Your task to perform on an android device: Turn off the flashlight Image 0: 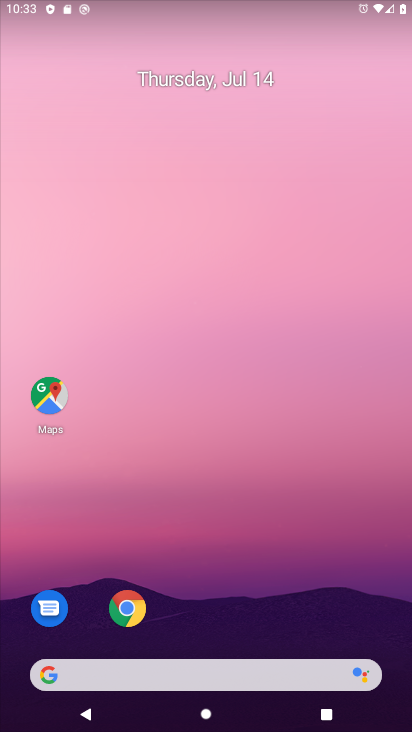
Step 0: drag from (199, 624) to (306, 16)
Your task to perform on an android device: Turn off the flashlight Image 1: 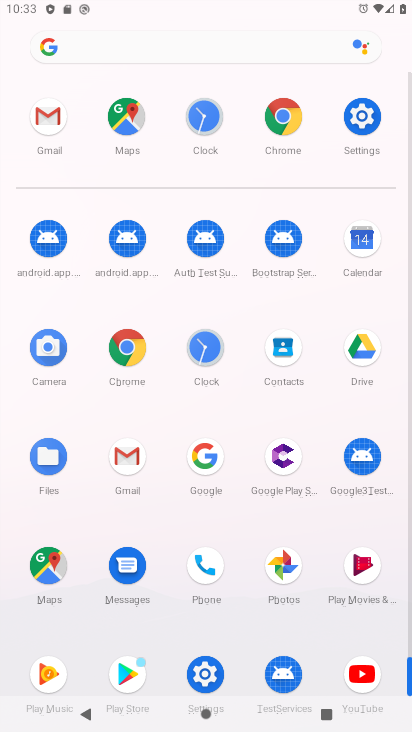
Step 1: click (214, 665)
Your task to perform on an android device: Turn off the flashlight Image 2: 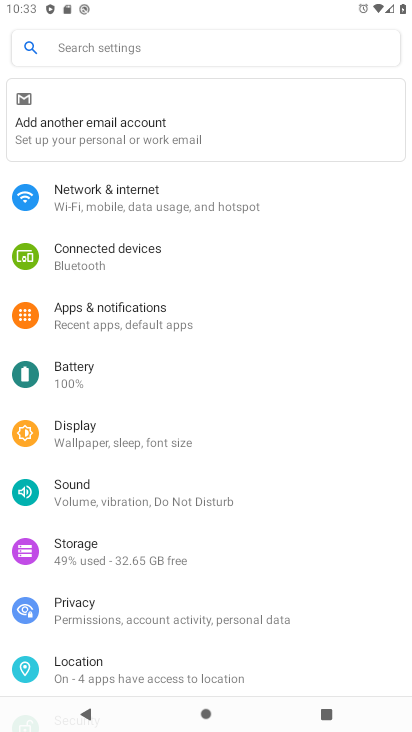
Step 2: click (193, 45)
Your task to perform on an android device: Turn off the flashlight Image 3: 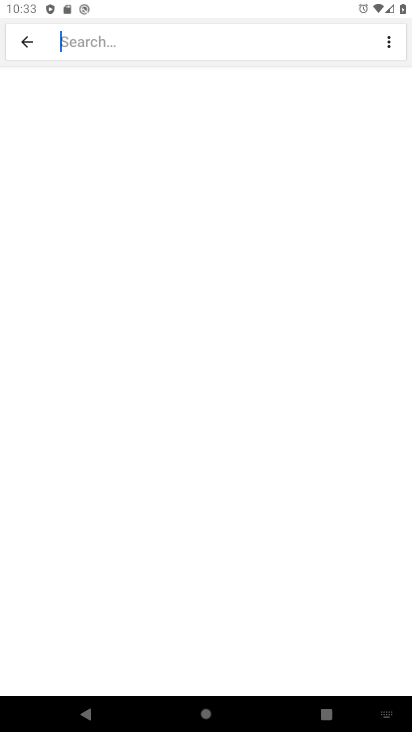
Step 3: type "flashlight"
Your task to perform on an android device: Turn off the flashlight Image 4: 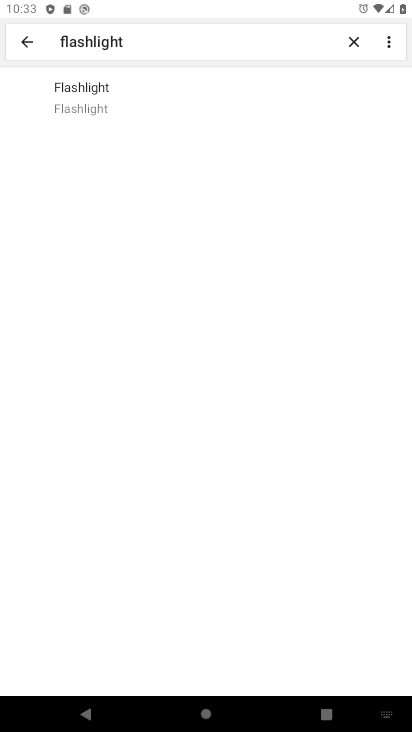
Step 4: click (93, 99)
Your task to perform on an android device: Turn off the flashlight Image 5: 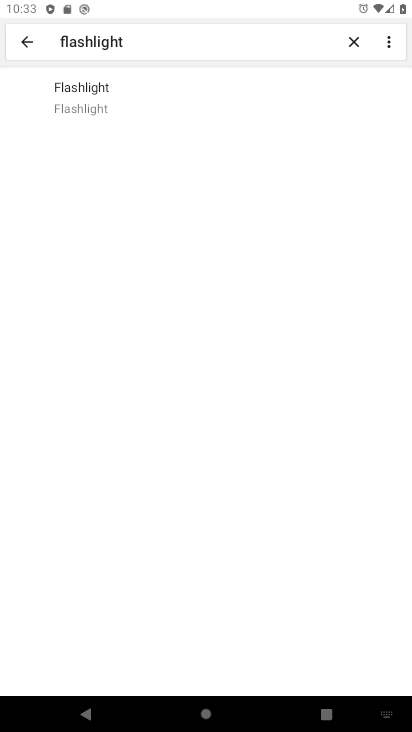
Step 5: click (94, 115)
Your task to perform on an android device: Turn off the flashlight Image 6: 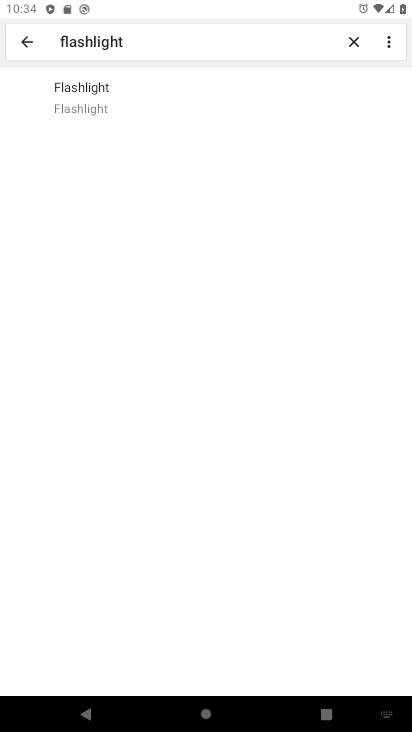
Step 6: click (107, 99)
Your task to perform on an android device: Turn off the flashlight Image 7: 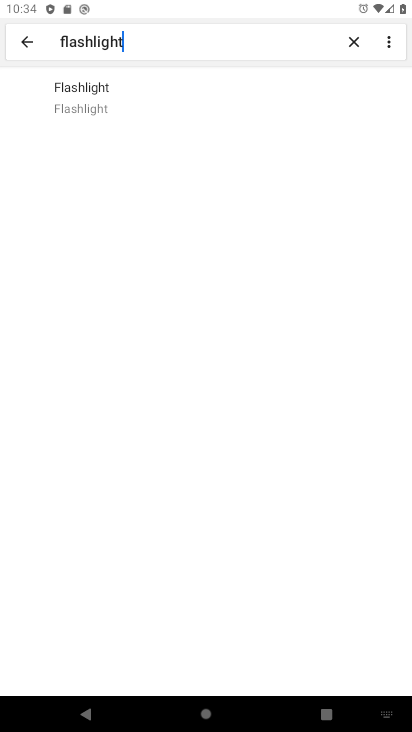
Step 7: task complete